Your task to perform on an android device: Do I have any events this weekend? Image 0: 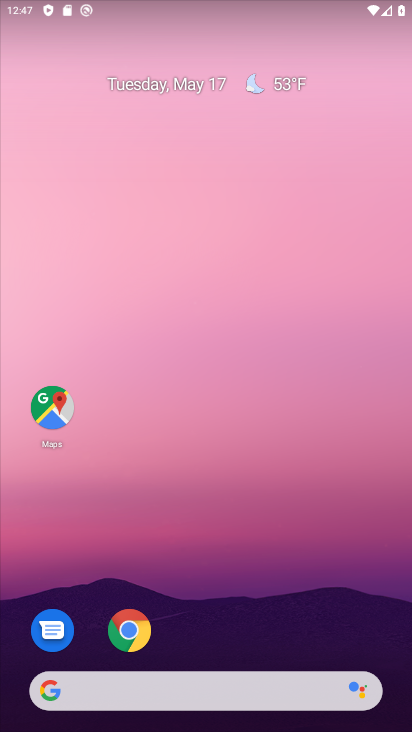
Step 0: drag from (284, 612) to (277, 230)
Your task to perform on an android device: Do I have any events this weekend? Image 1: 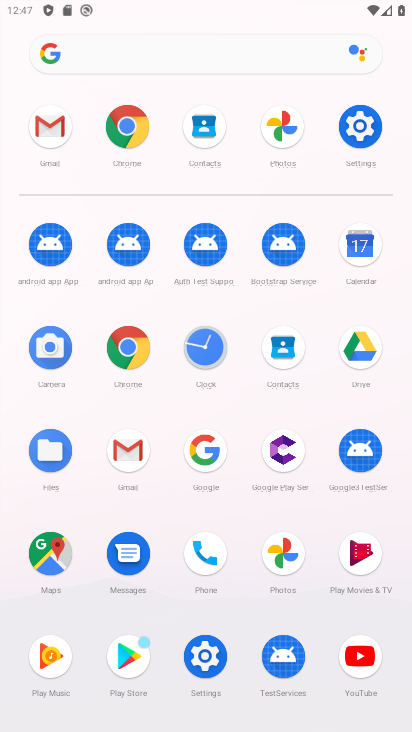
Step 1: click (355, 284)
Your task to perform on an android device: Do I have any events this weekend? Image 2: 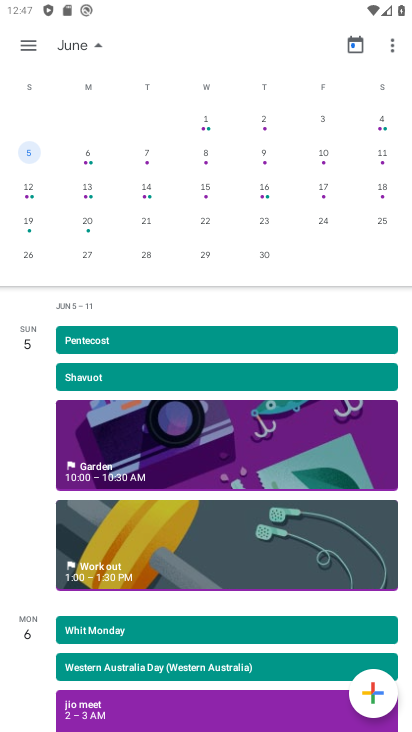
Step 2: drag from (69, 200) to (401, 176)
Your task to perform on an android device: Do I have any events this weekend? Image 3: 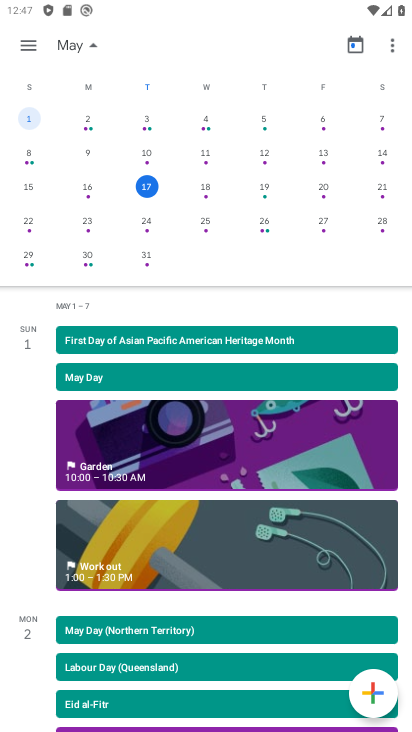
Step 3: click (382, 192)
Your task to perform on an android device: Do I have any events this weekend? Image 4: 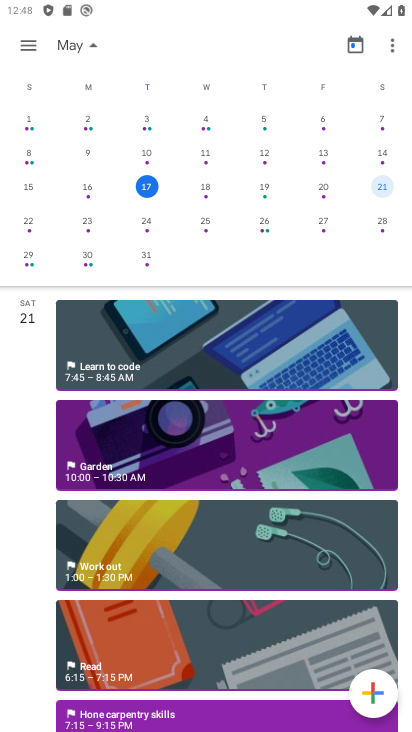
Step 4: task complete